Your task to perform on an android device: Show me popular videos on Youtube Image 0: 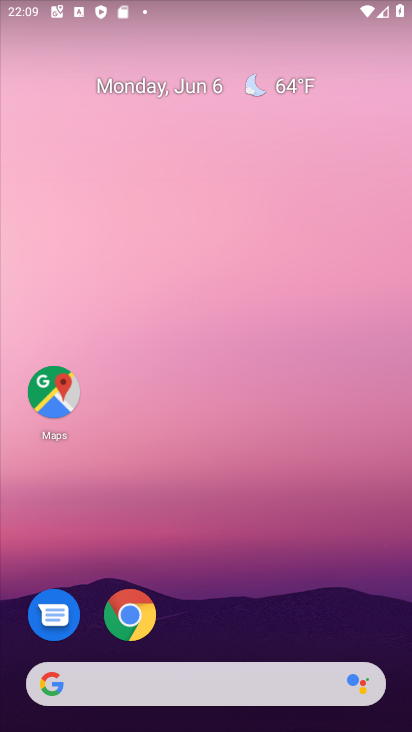
Step 0: drag from (394, 646) to (352, 236)
Your task to perform on an android device: Show me popular videos on Youtube Image 1: 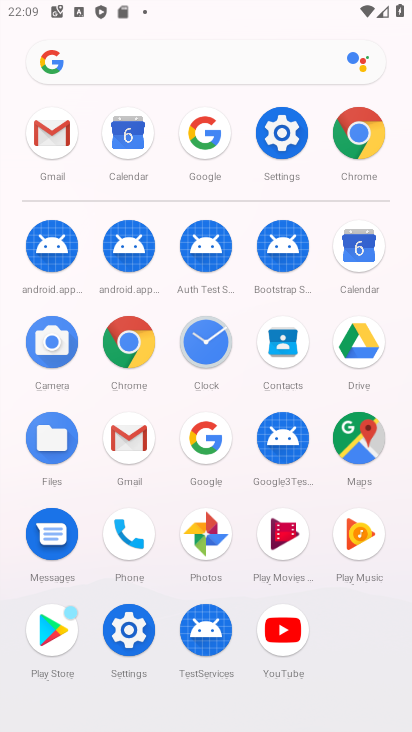
Step 1: click (280, 629)
Your task to perform on an android device: Show me popular videos on Youtube Image 2: 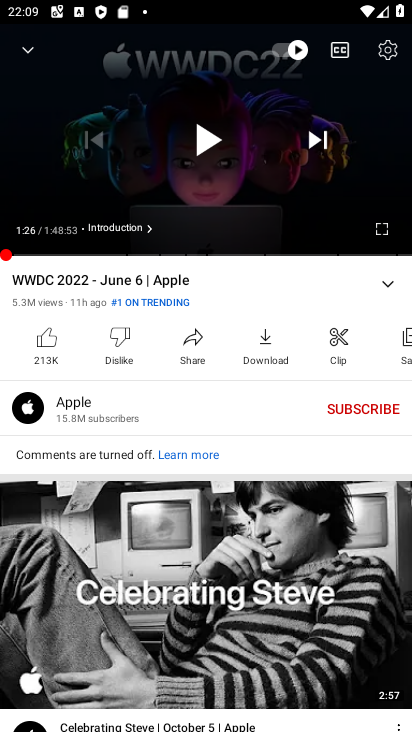
Step 2: drag from (341, 610) to (306, 334)
Your task to perform on an android device: Show me popular videos on Youtube Image 3: 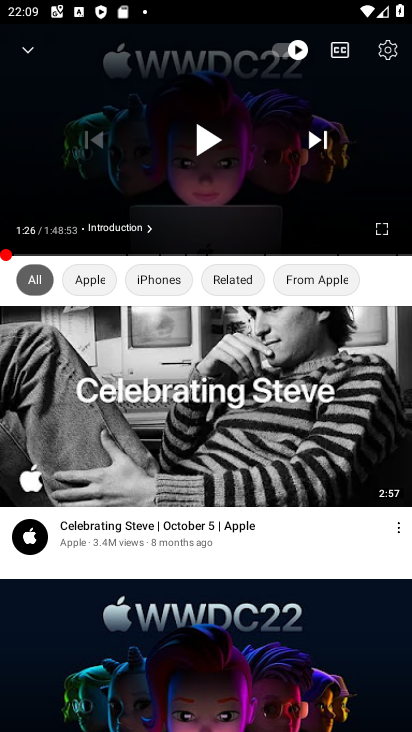
Step 3: press back button
Your task to perform on an android device: Show me popular videos on Youtube Image 4: 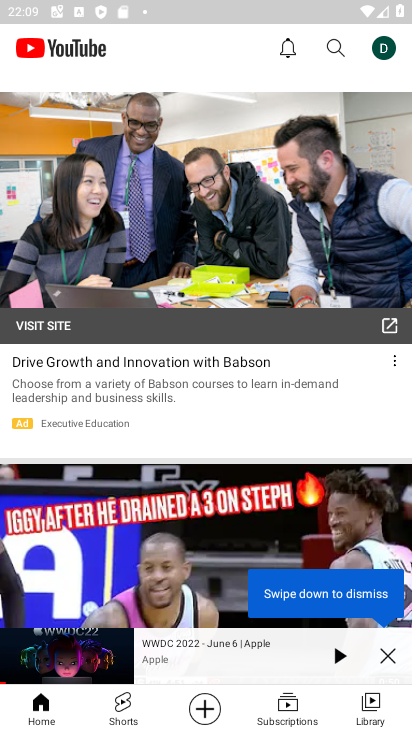
Step 4: click (362, 698)
Your task to perform on an android device: Show me popular videos on Youtube Image 5: 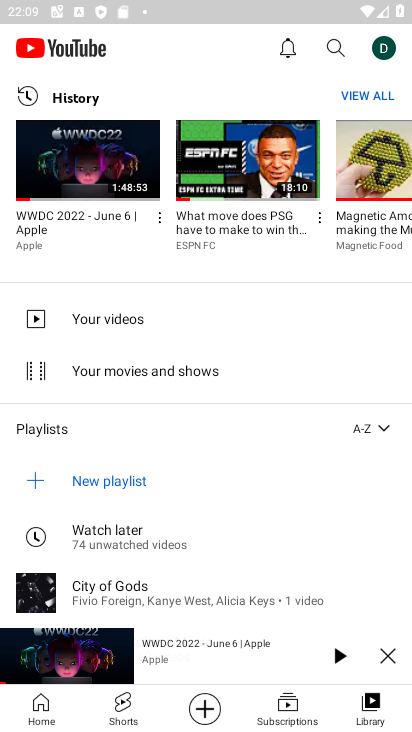
Step 5: click (384, 649)
Your task to perform on an android device: Show me popular videos on Youtube Image 6: 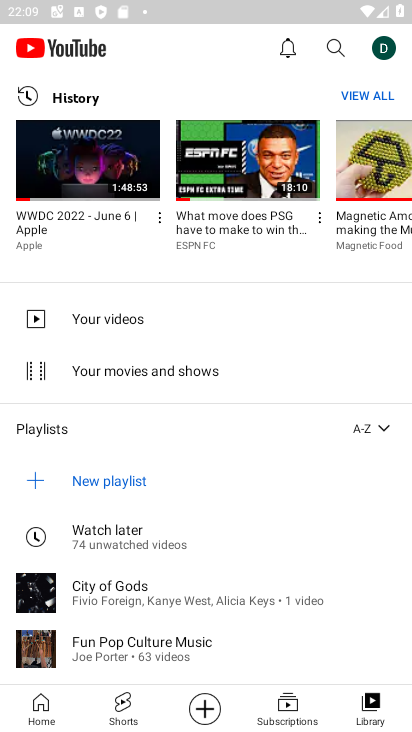
Step 6: click (111, 167)
Your task to perform on an android device: Show me popular videos on Youtube Image 7: 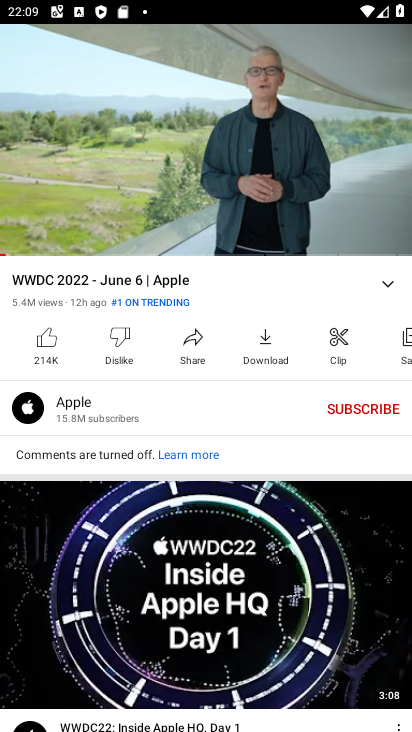
Step 7: click (233, 133)
Your task to perform on an android device: Show me popular videos on Youtube Image 8: 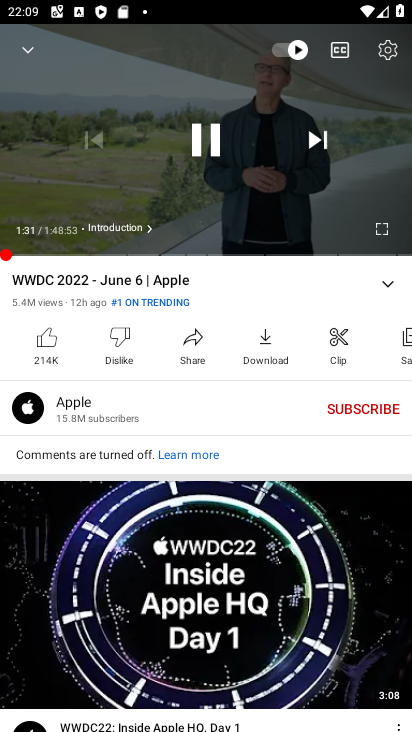
Step 8: press back button
Your task to perform on an android device: Show me popular videos on Youtube Image 9: 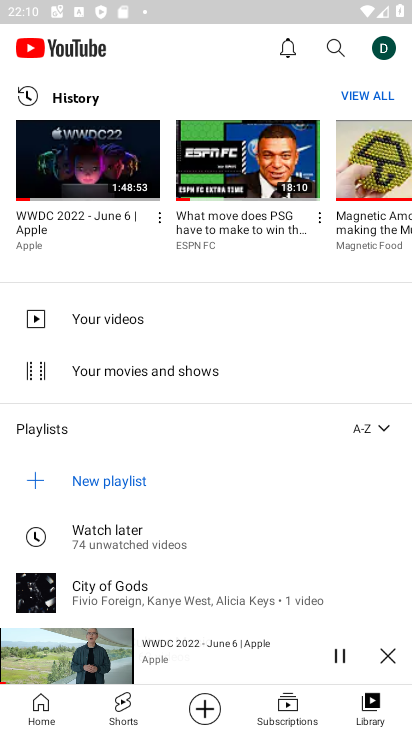
Step 9: click (330, 46)
Your task to perform on an android device: Show me popular videos on Youtube Image 10: 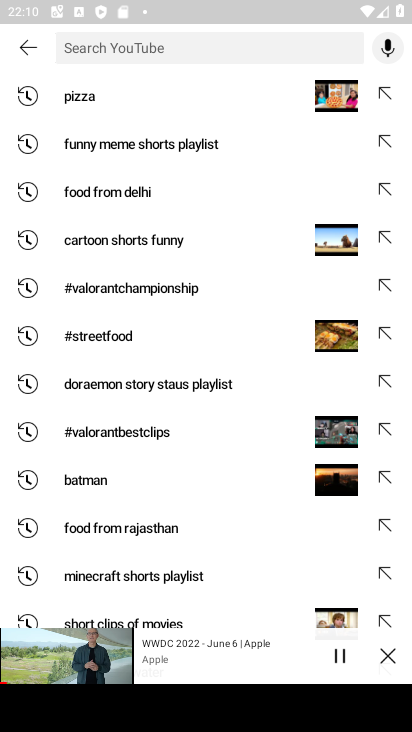
Step 10: click (385, 655)
Your task to perform on an android device: Show me popular videos on Youtube Image 11: 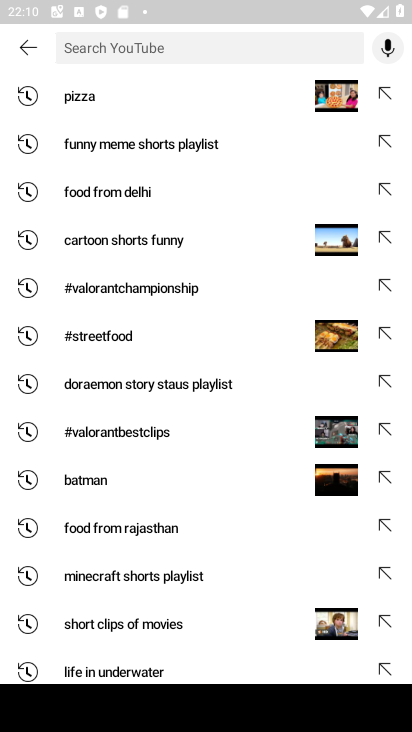
Step 11: type " popular videos"
Your task to perform on an android device: Show me popular videos on Youtube Image 12: 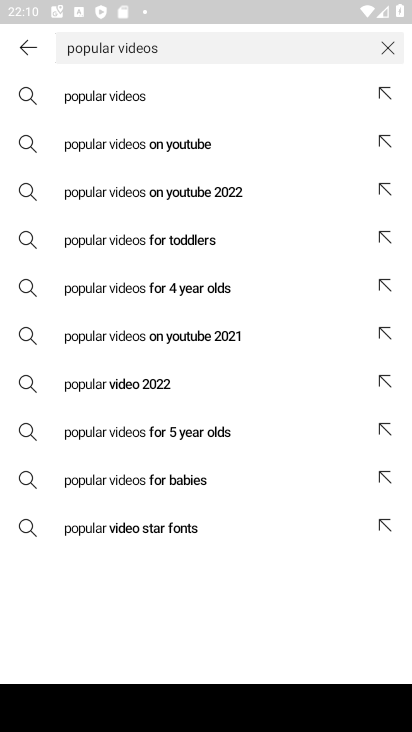
Step 12: click (107, 103)
Your task to perform on an android device: Show me popular videos on Youtube Image 13: 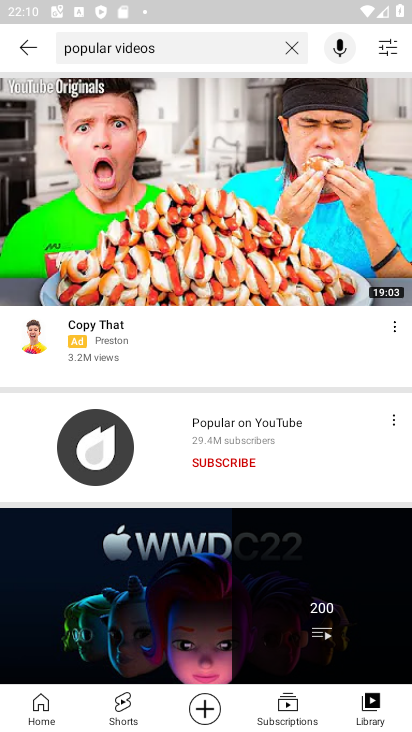
Step 13: task complete